Your task to perform on an android device: clear all cookies in the chrome app Image 0: 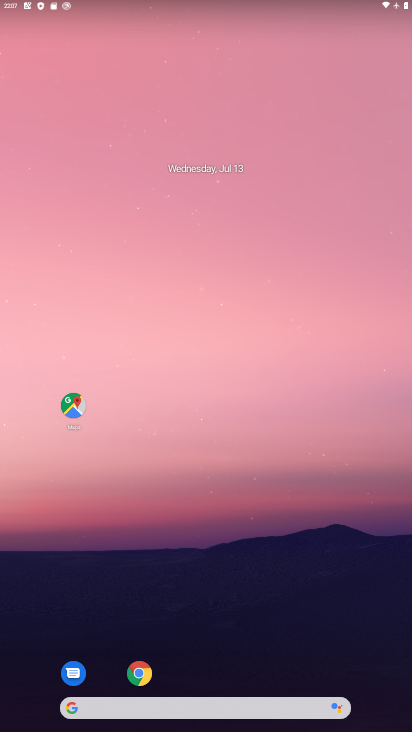
Step 0: click (139, 667)
Your task to perform on an android device: clear all cookies in the chrome app Image 1: 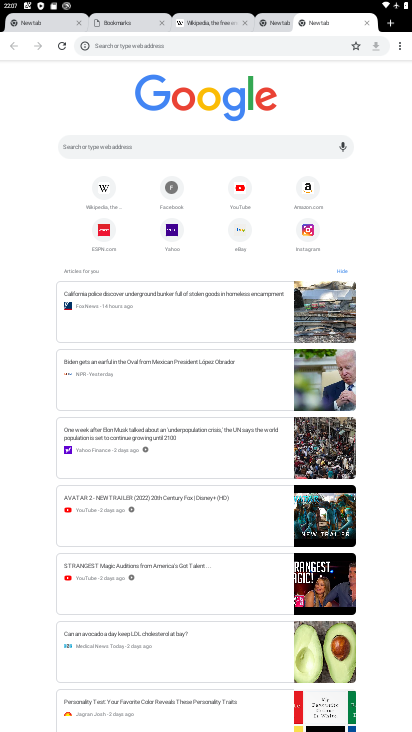
Step 1: click (394, 48)
Your task to perform on an android device: clear all cookies in the chrome app Image 2: 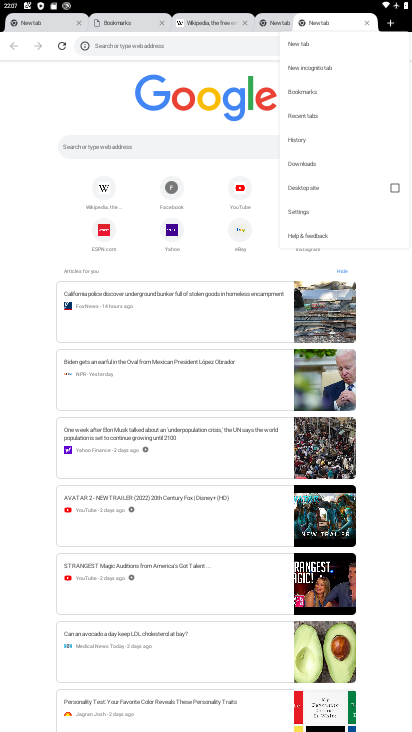
Step 2: click (289, 138)
Your task to perform on an android device: clear all cookies in the chrome app Image 3: 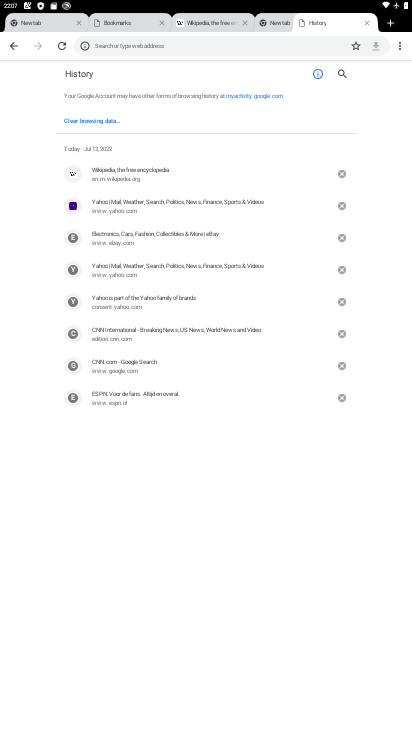
Step 3: click (96, 117)
Your task to perform on an android device: clear all cookies in the chrome app Image 4: 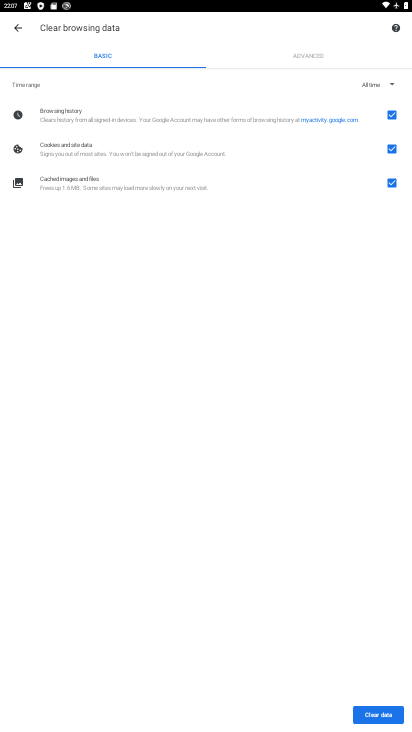
Step 4: click (373, 706)
Your task to perform on an android device: clear all cookies in the chrome app Image 5: 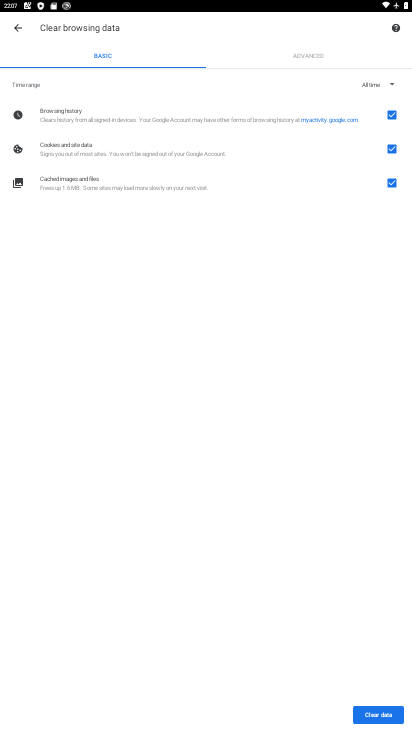
Step 5: click (370, 712)
Your task to perform on an android device: clear all cookies in the chrome app Image 6: 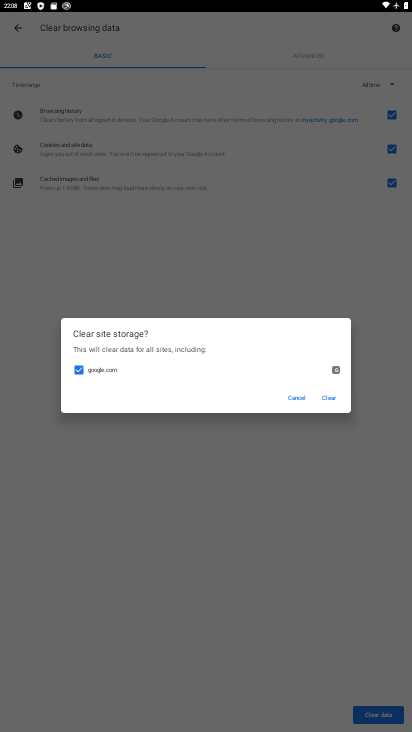
Step 6: click (322, 389)
Your task to perform on an android device: clear all cookies in the chrome app Image 7: 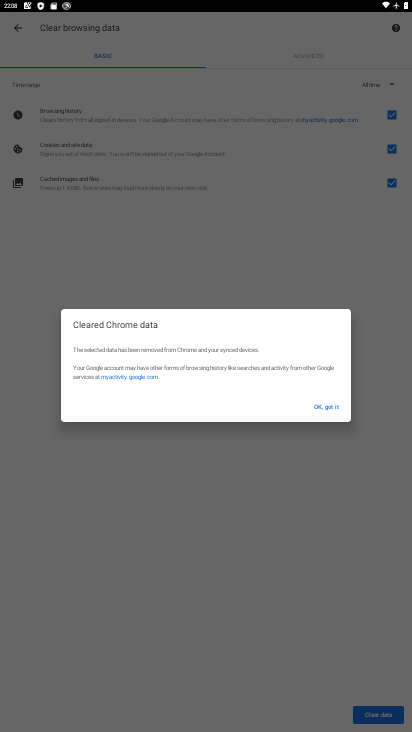
Step 7: click (329, 405)
Your task to perform on an android device: clear all cookies in the chrome app Image 8: 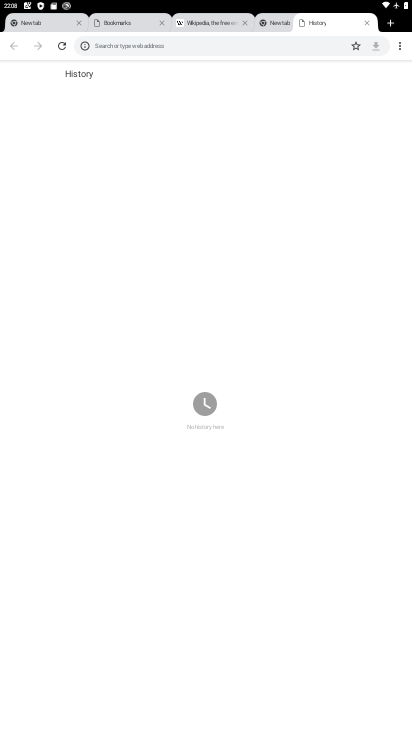
Step 8: task complete